Your task to perform on an android device: Turn off the flashlight Image 0: 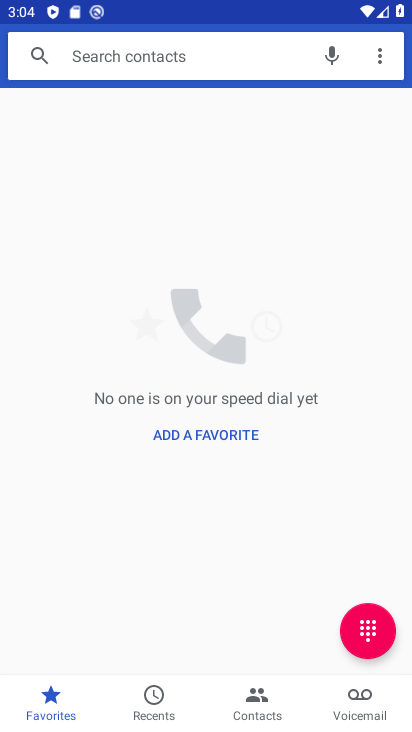
Step 0: press home button
Your task to perform on an android device: Turn off the flashlight Image 1: 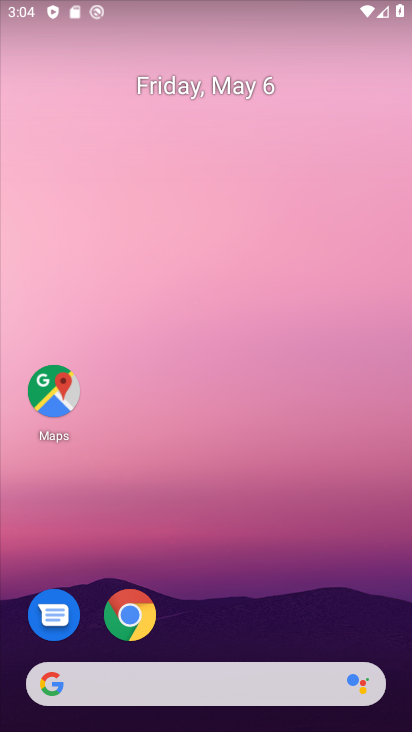
Step 1: task complete